Your task to perform on an android device: delete browsing data in the chrome app Image 0: 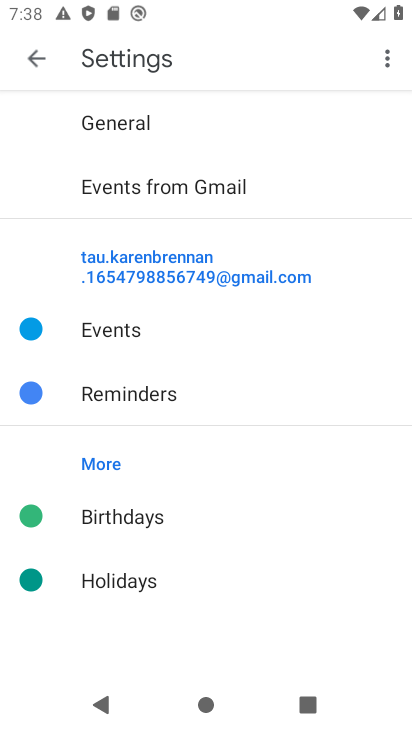
Step 0: press home button
Your task to perform on an android device: delete browsing data in the chrome app Image 1: 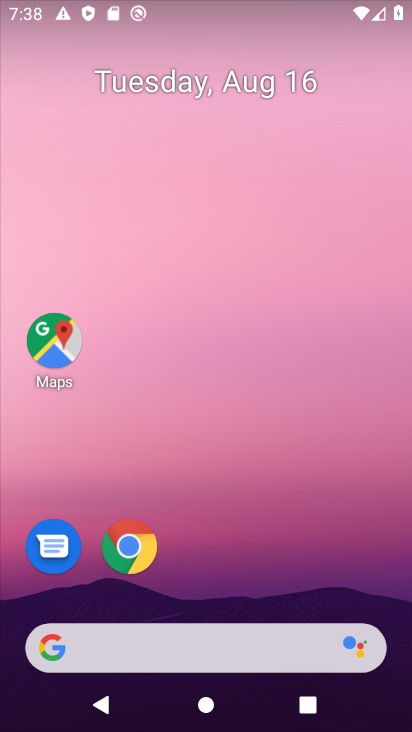
Step 1: click (132, 549)
Your task to perform on an android device: delete browsing data in the chrome app Image 2: 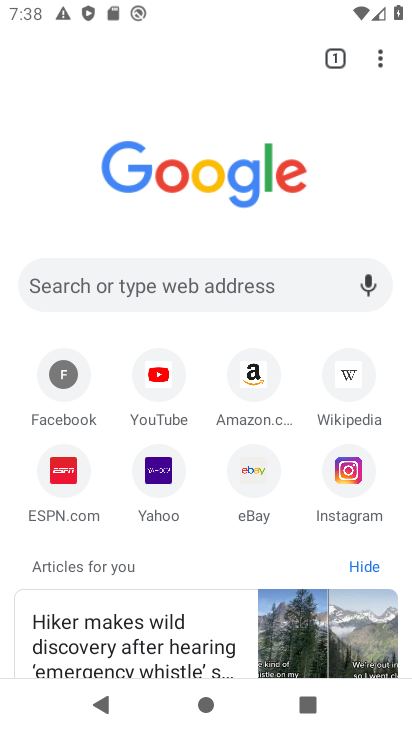
Step 2: click (378, 63)
Your task to perform on an android device: delete browsing data in the chrome app Image 3: 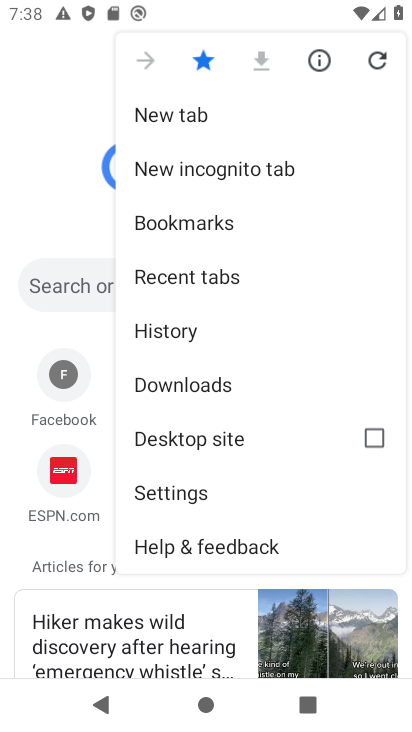
Step 3: click (195, 333)
Your task to perform on an android device: delete browsing data in the chrome app Image 4: 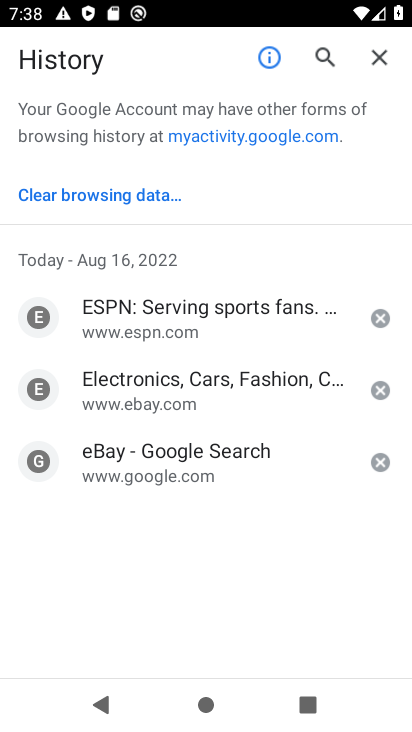
Step 4: click (107, 194)
Your task to perform on an android device: delete browsing data in the chrome app Image 5: 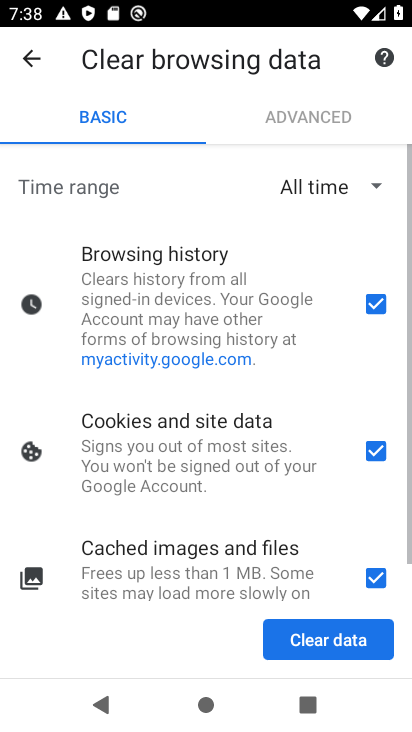
Step 5: click (340, 640)
Your task to perform on an android device: delete browsing data in the chrome app Image 6: 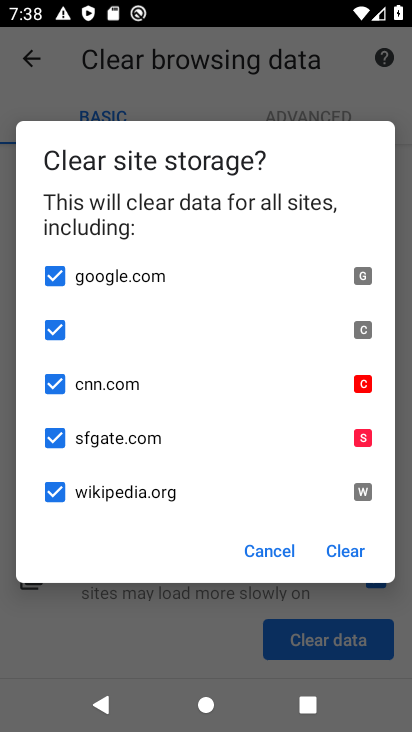
Step 6: click (345, 539)
Your task to perform on an android device: delete browsing data in the chrome app Image 7: 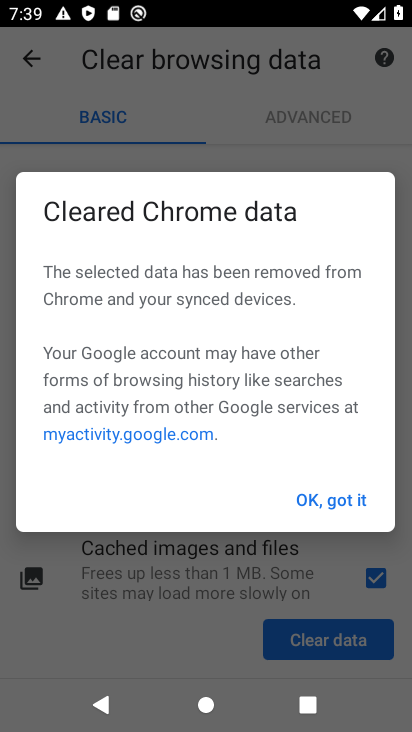
Step 7: click (353, 497)
Your task to perform on an android device: delete browsing data in the chrome app Image 8: 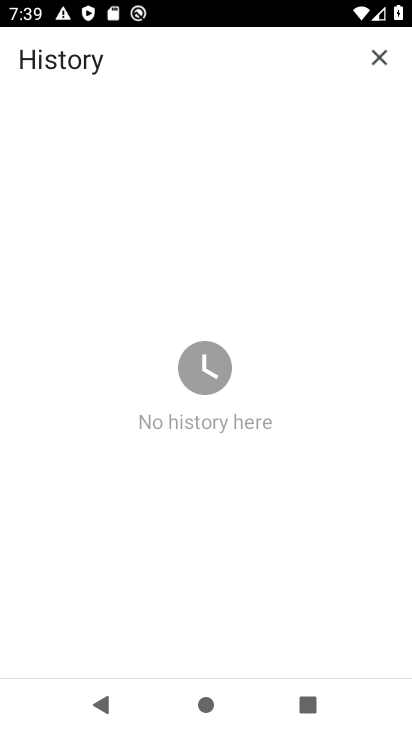
Step 8: task complete